Your task to perform on an android device: refresh tabs in the chrome app Image 0: 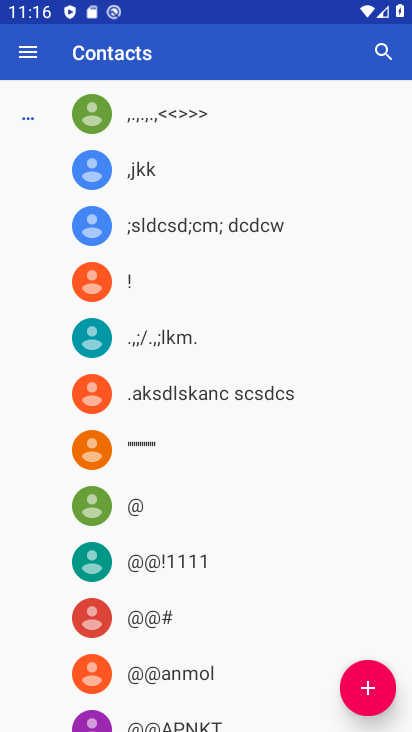
Step 0: press home button
Your task to perform on an android device: refresh tabs in the chrome app Image 1: 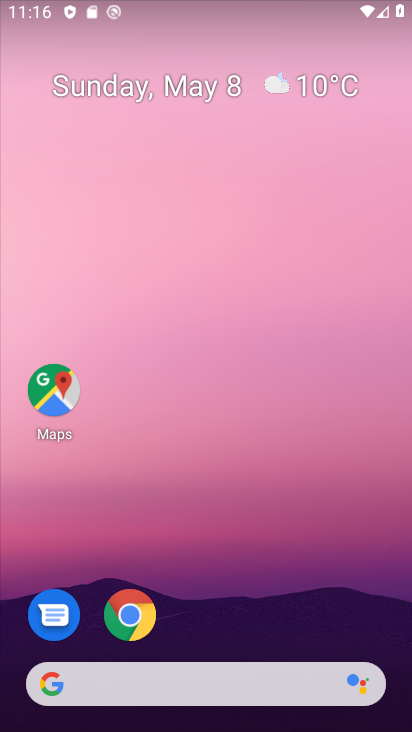
Step 1: drag from (284, 713) to (272, 313)
Your task to perform on an android device: refresh tabs in the chrome app Image 2: 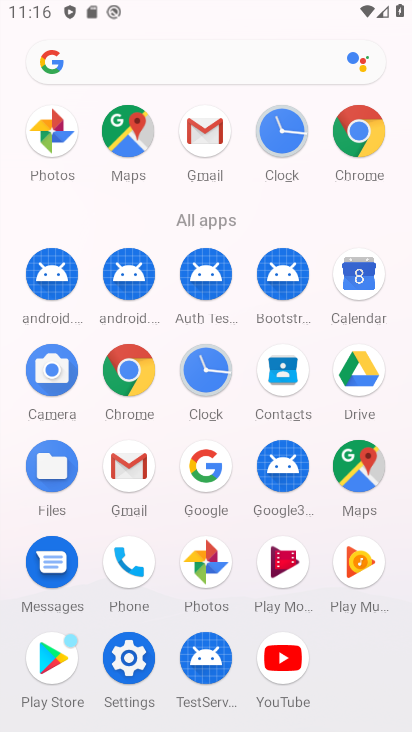
Step 2: click (123, 379)
Your task to perform on an android device: refresh tabs in the chrome app Image 3: 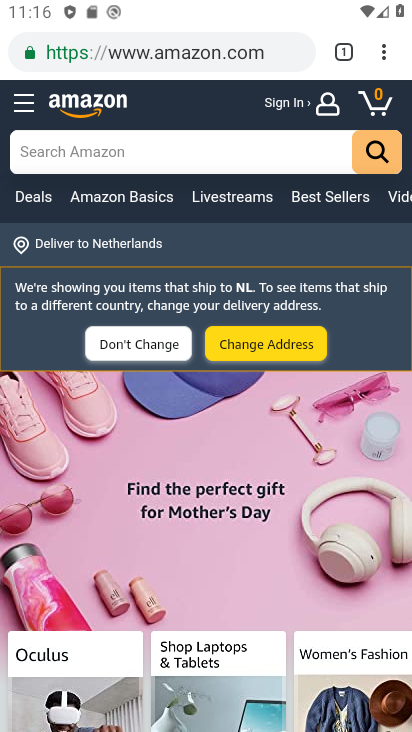
Step 3: click (375, 57)
Your task to perform on an android device: refresh tabs in the chrome app Image 4: 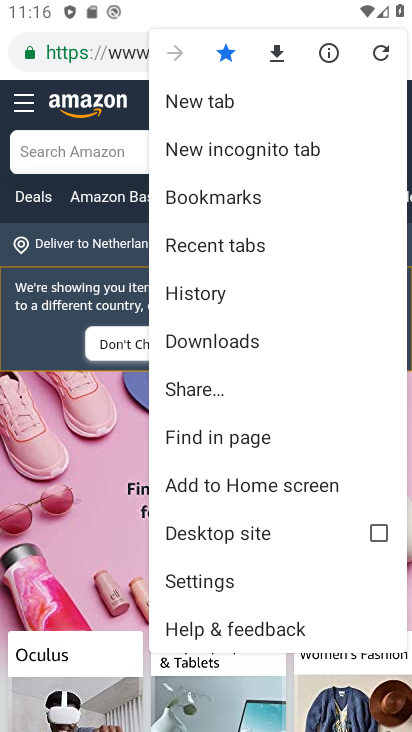
Step 4: click (373, 54)
Your task to perform on an android device: refresh tabs in the chrome app Image 5: 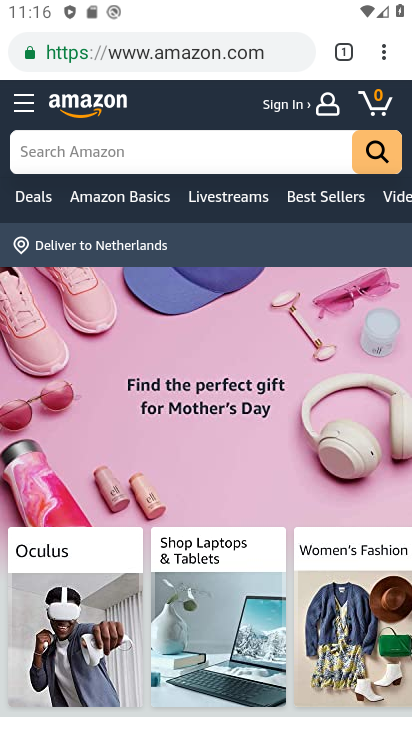
Step 5: task complete